Your task to perform on an android device: Open display settings Image 0: 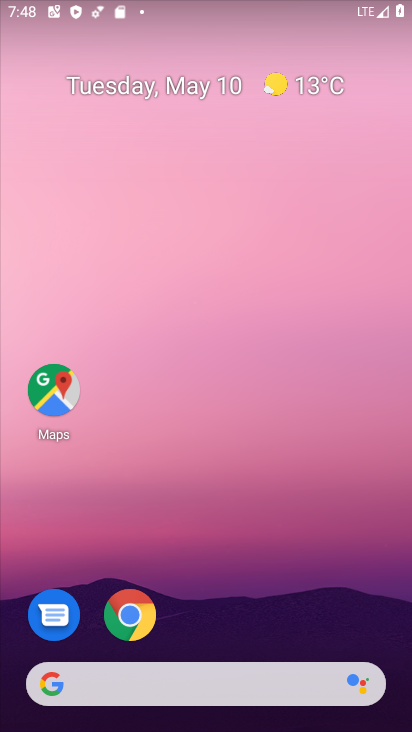
Step 0: drag from (317, 574) to (370, 23)
Your task to perform on an android device: Open display settings Image 1: 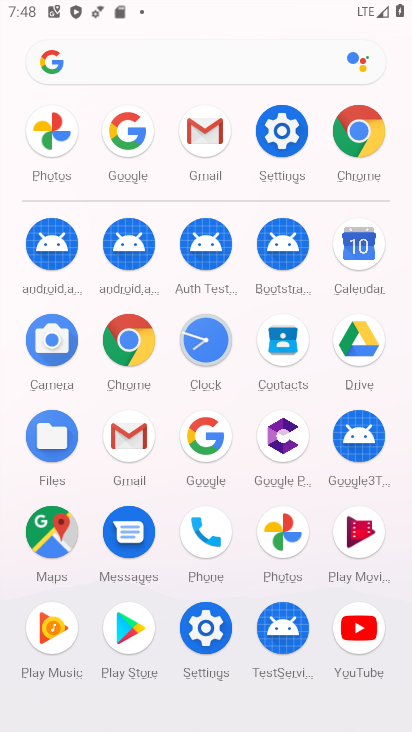
Step 1: click (299, 122)
Your task to perform on an android device: Open display settings Image 2: 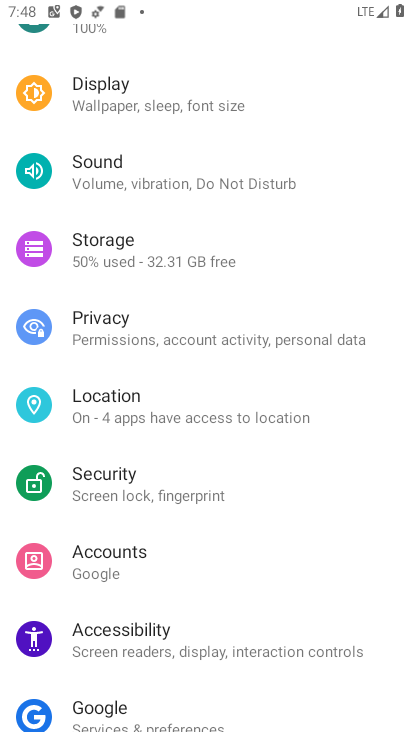
Step 2: click (139, 99)
Your task to perform on an android device: Open display settings Image 3: 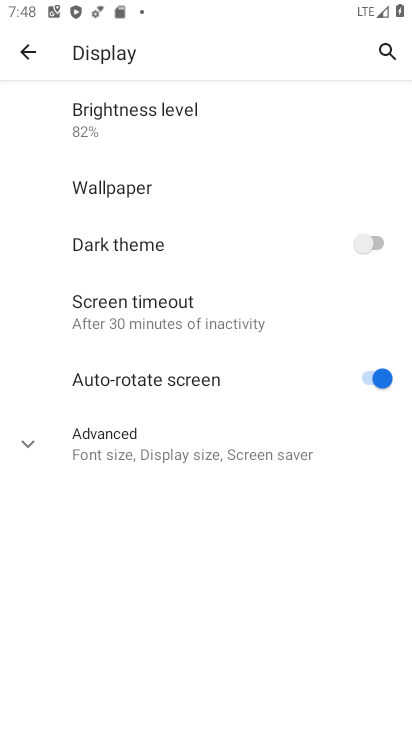
Step 3: task complete